Your task to perform on an android device: add a contact Image 0: 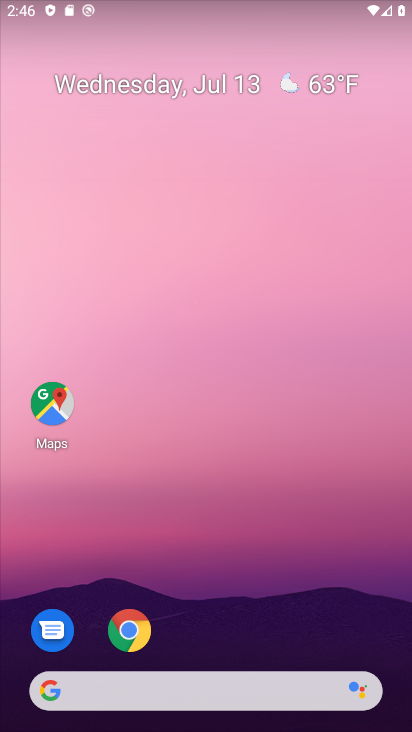
Step 0: drag from (235, 414) to (200, 51)
Your task to perform on an android device: add a contact Image 1: 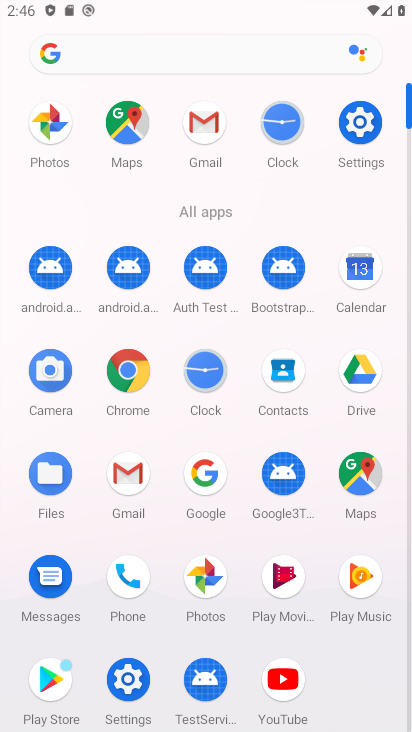
Step 1: click (129, 580)
Your task to perform on an android device: add a contact Image 2: 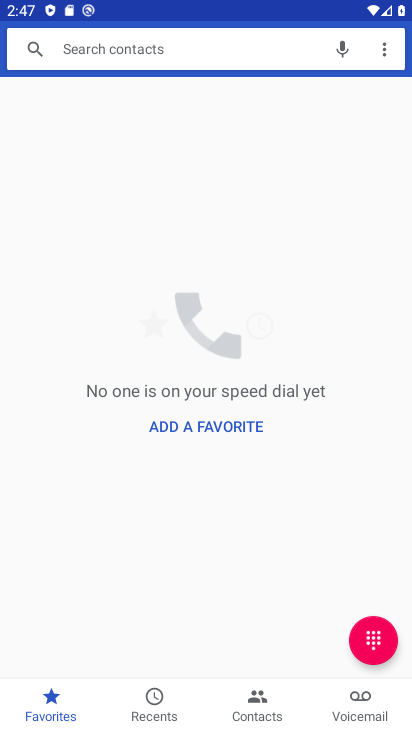
Step 2: click (235, 710)
Your task to perform on an android device: add a contact Image 3: 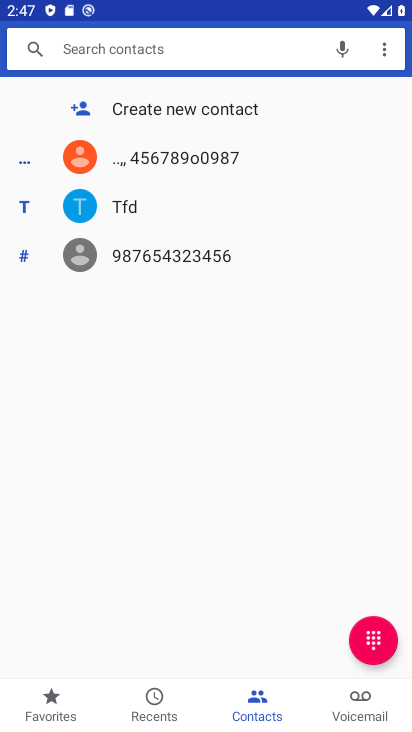
Step 3: click (187, 115)
Your task to perform on an android device: add a contact Image 4: 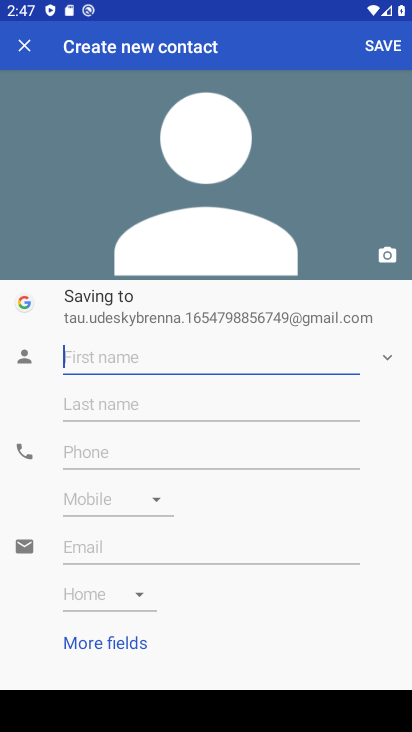
Step 4: type "fxcc"
Your task to perform on an android device: add a contact Image 5: 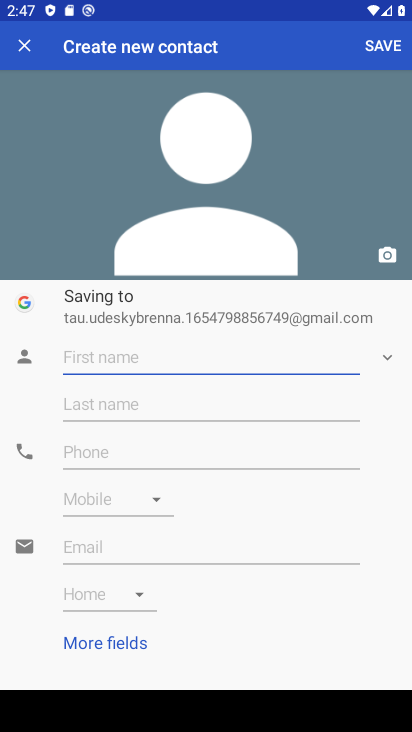
Step 5: click (191, 440)
Your task to perform on an android device: add a contact Image 6: 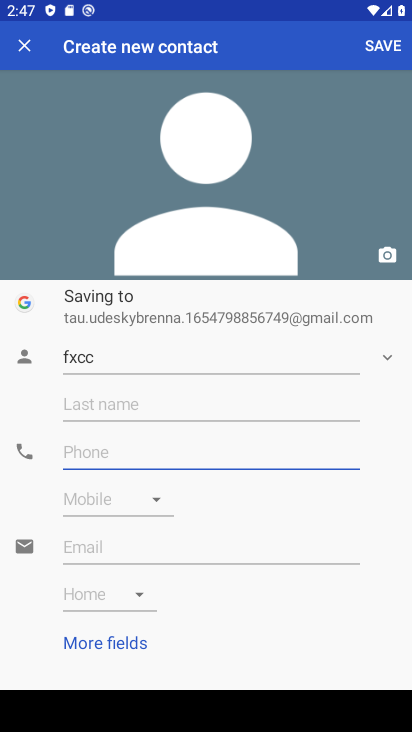
Step 6: click (193, 451)
Your task to perform on an android device: add a contact Image 7: 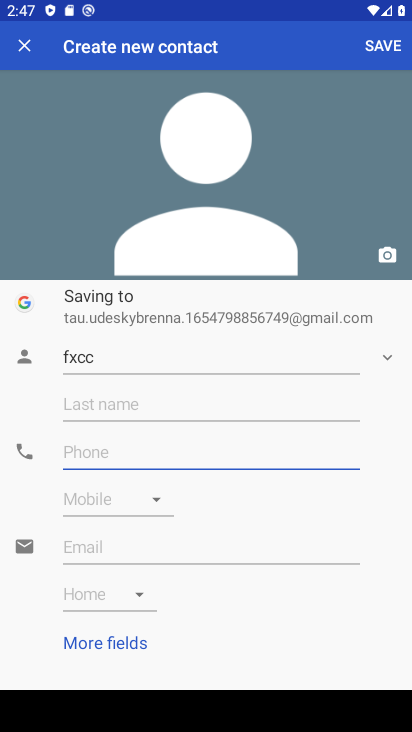
Step 7: type "533333"
Your task to perform on an android device: add a contact Image 8: 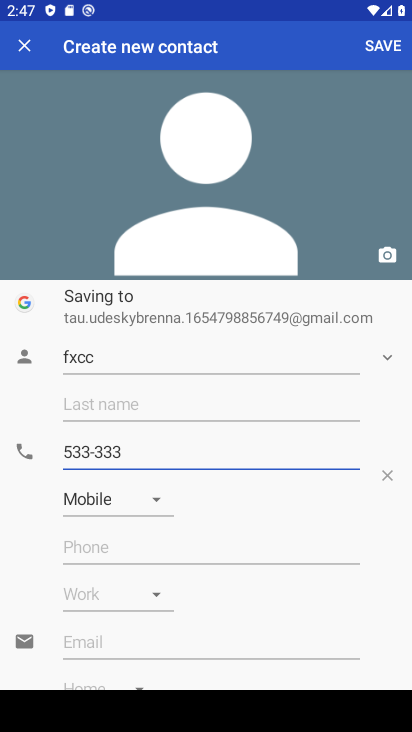
Step 8: click (392, 48)
Your task to perform on an android device: add a contact Image 9: 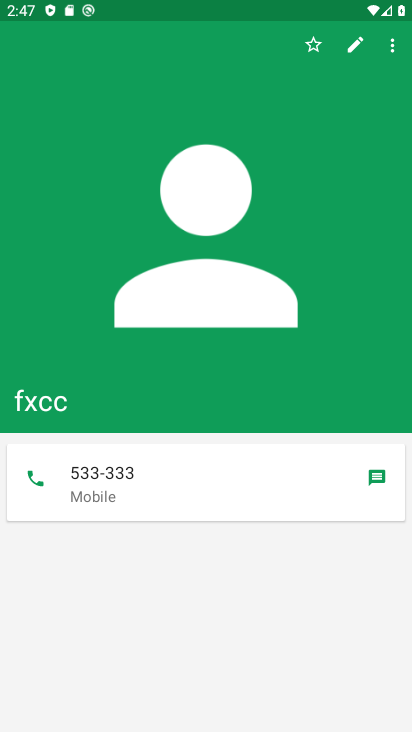
Step 9: task complete